Your task to perform on an android device: Open the calendar and show me this week's events? Image 0: 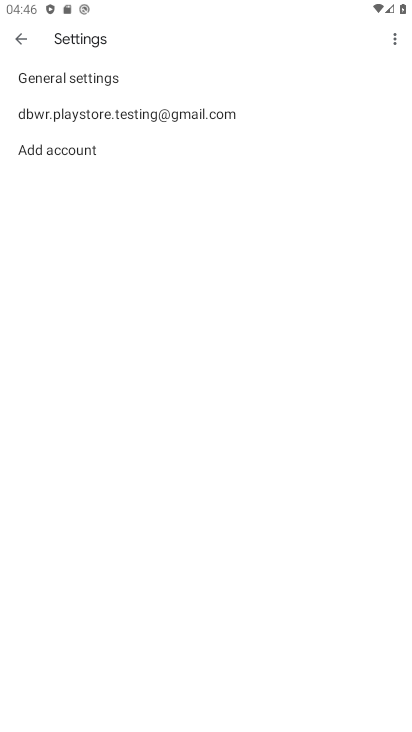
Step 0: press home button
Your task to perform on an android device: Open the calendar and show me this week's events? Image 1: 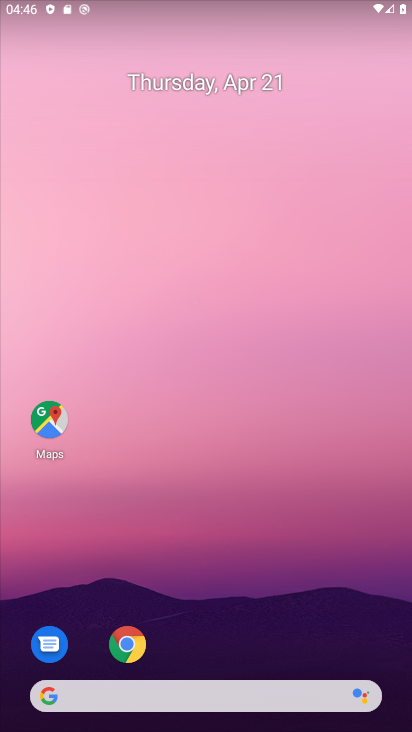
Step 1: drag from (266, 567) to (292, 169)
Your task to perform on an android device: Open the calendar and show me this week's events? Image 2: 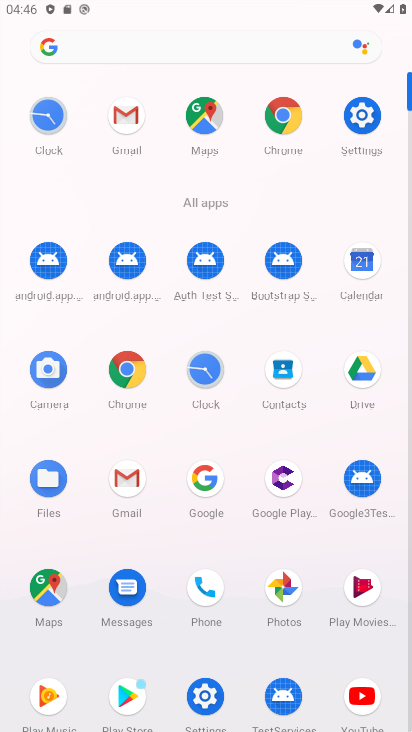
Step 2: click (374, 253)
Your task to perform on an android device: Open the calendar and show me this week's events? Image 3: 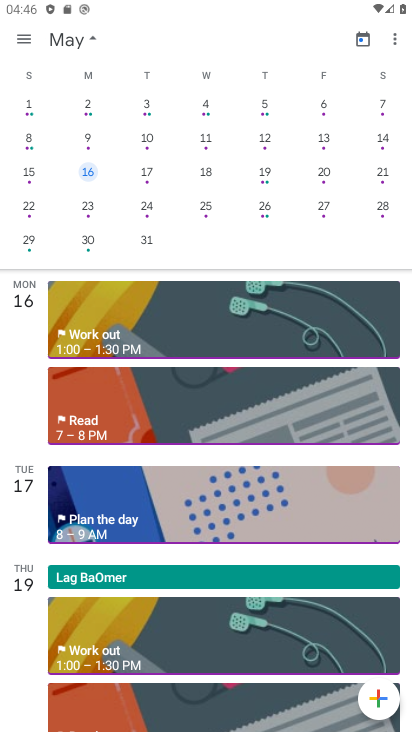
Step 3: task complete